Your task to perform on an android device: open device folders in google photos Image 0: 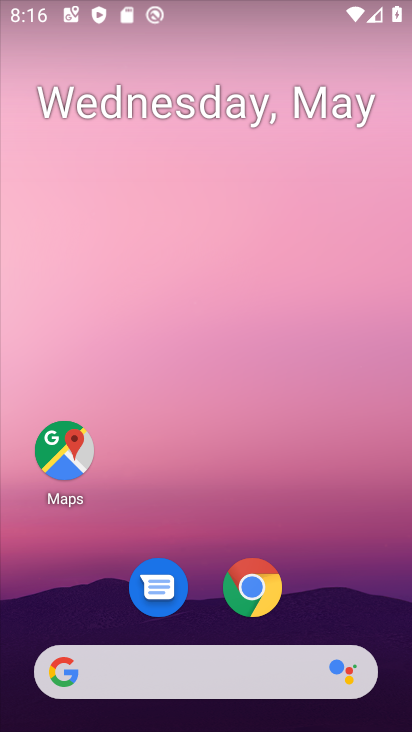
Step 0: drag from (378, 633) to (283, 64)
Your task to perform on an android device: open device folders in google photos Image 1: 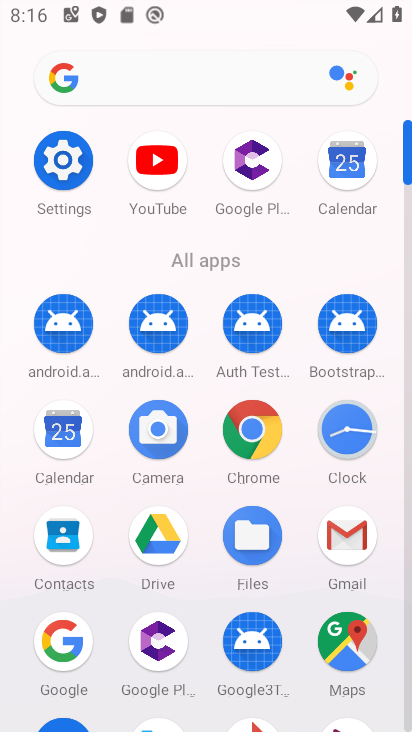
Step 1: click (406, 703)
Your task to perform on an android device: open device folders in google photos Image 2: 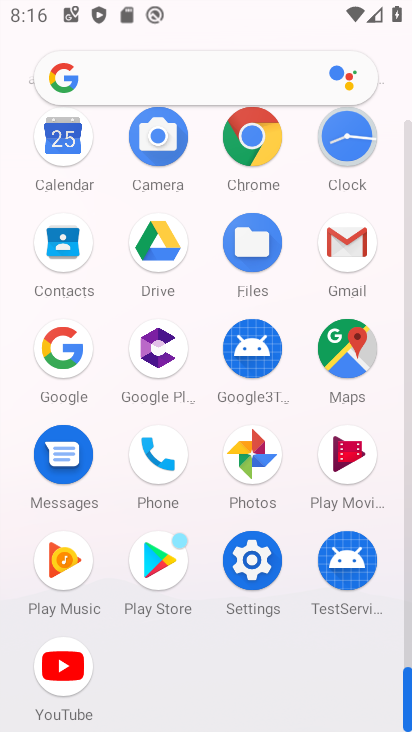
Step 2: click (254, 456)
Your task to perform on an android device: open device folders in google photos Image 3: 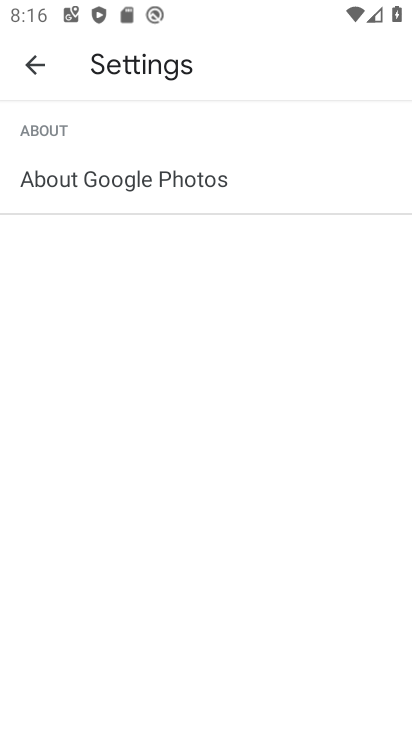
Step 3: press back button
Your task to perform on an android device: open device folders in google photos Image 4: 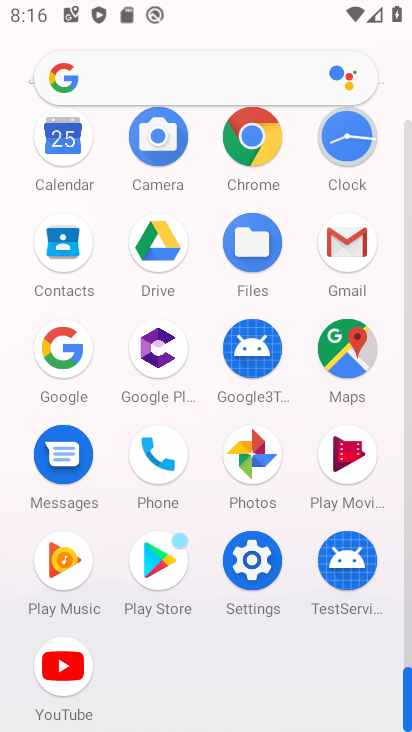
Step 4: click (252, 452)
Your task to perform on an android device: open device folders in google photos Image 5: 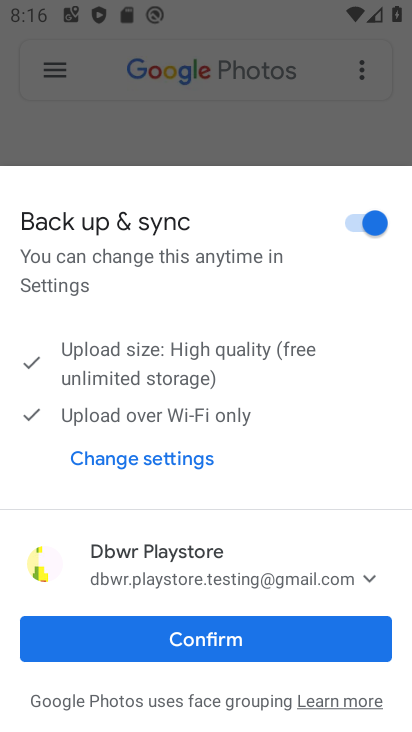
Step 5: click (201, 631)
Your task to perform on an android device: open device folders in google photos Image 6: 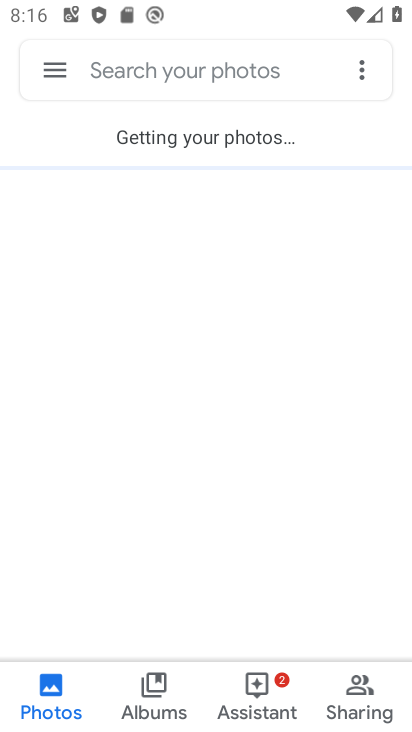
Step 6: click (53, 74)
Your task to perform on an android device: open device folders in google photos Image 7: 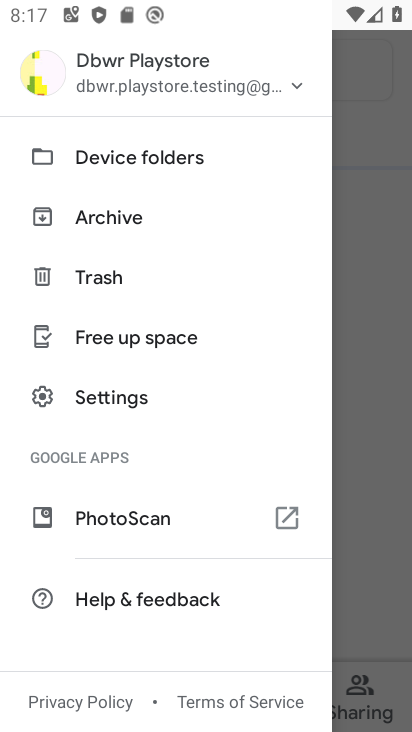
Step 7: click (150, 158)
Your task to perform on an android device: open device folders in google photos Image 8: 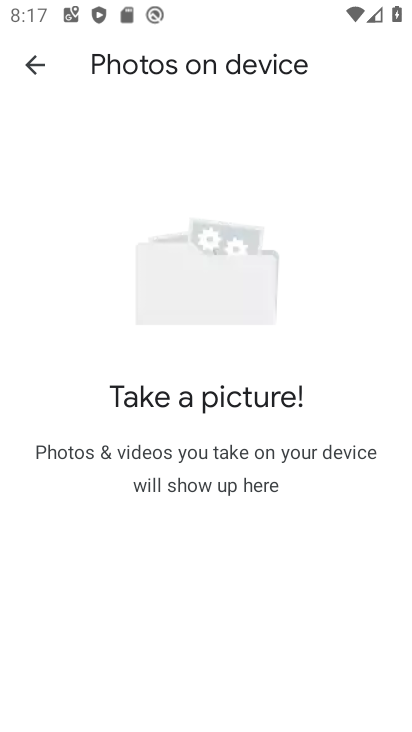
Step 8: task complete